Your task to perform on an android device: Go to Yahoo.com Image 0: 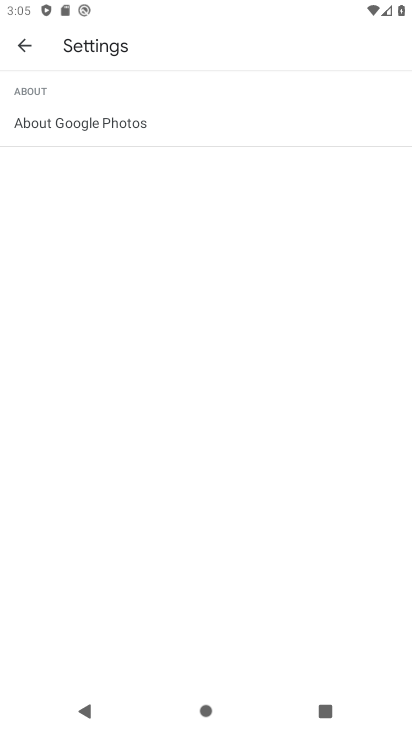
Step 0: press home button
Your task to perform on an android device: Go to Yahoo.com Image 1: 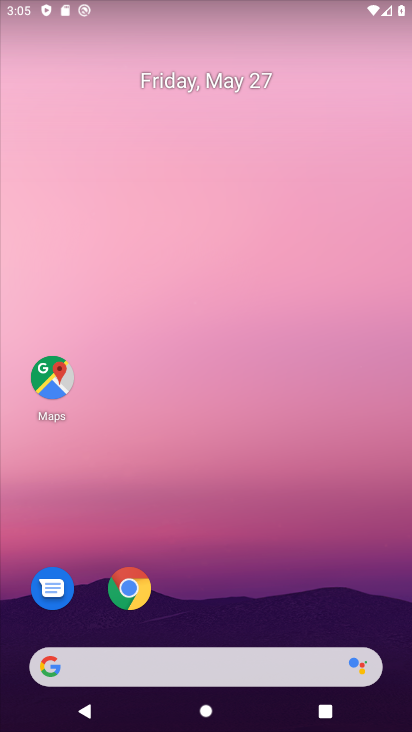
Step 1: click (141, 603)
Your task to perform on an android device: Go to Yahoo.com Image 2: 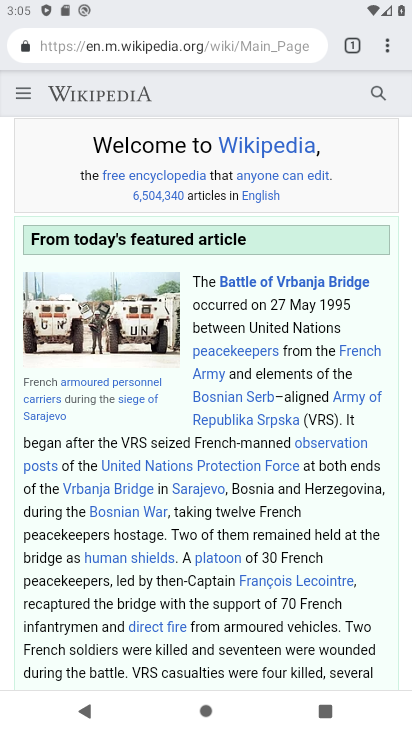
Step 2: click (164, 46)
Your task to perform on an android device: Go to Yahoo.com Image 3: 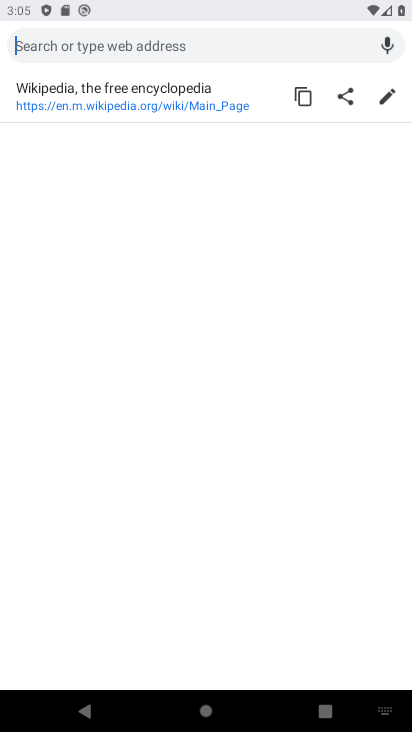
Step 3: type "yahoo"
Your task to perform on an android device: Go to Yahoo.com Image 4: 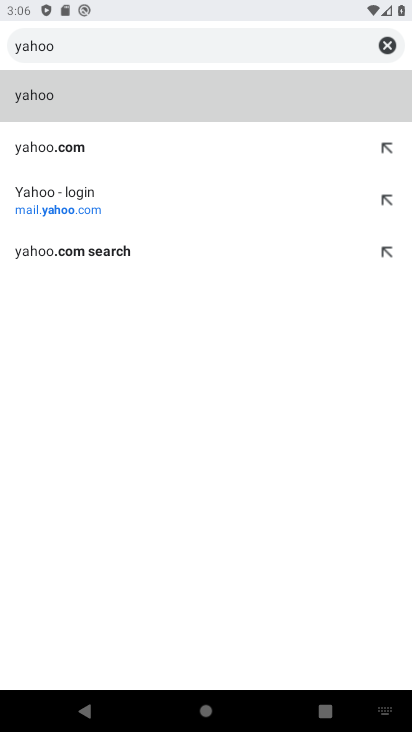
Step 4: click (200, 86)
Your task to perform on an android device: Go to Yahoo.com Image 5: 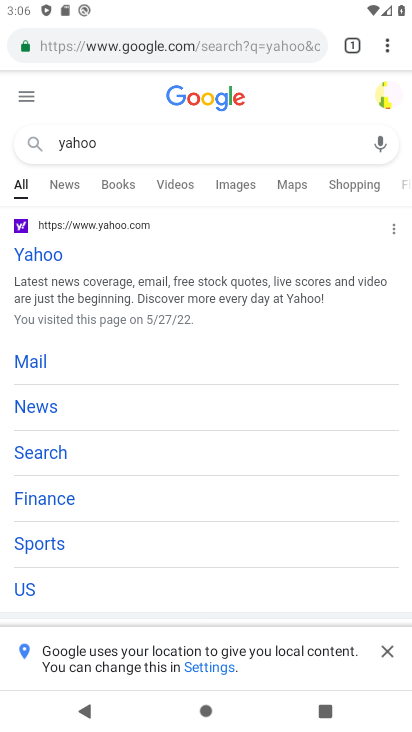
Step 5: click (50, 250)
Your task to perform on an android device: Go to Yahoo.com Image 6: 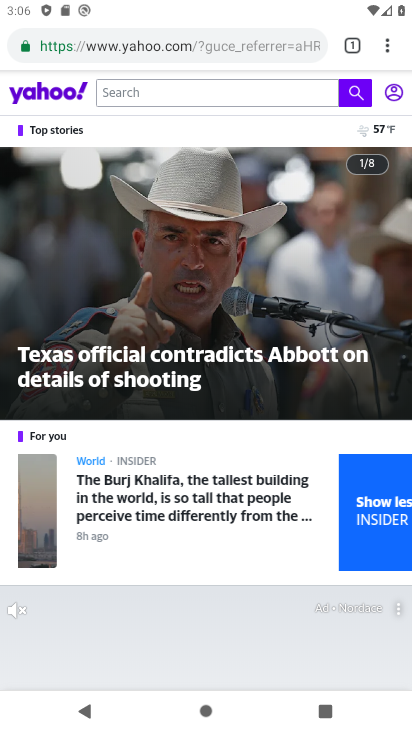
Step 6: task complete